Your task to perform on an android device: What's the weather? Image 0: 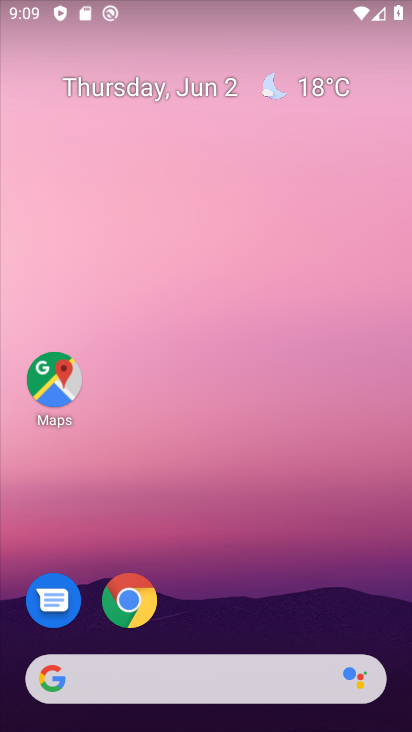
Step 0: drag from (220, 594) to (256, 101)
Your task to perform on an android device: What's the weather? Image 1: 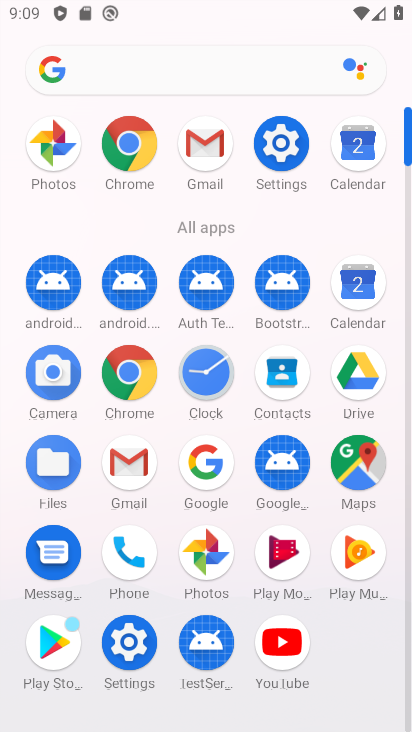
Step 1: click (203, 469)
Your task to perform on an android device: What's the weather? Image 2: 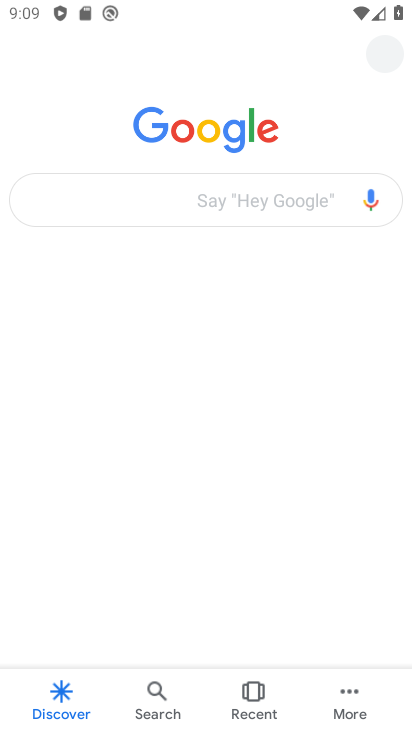
Step 2: click (148, 217)
Your task to perform on an android device: What's the weather? Image 3: 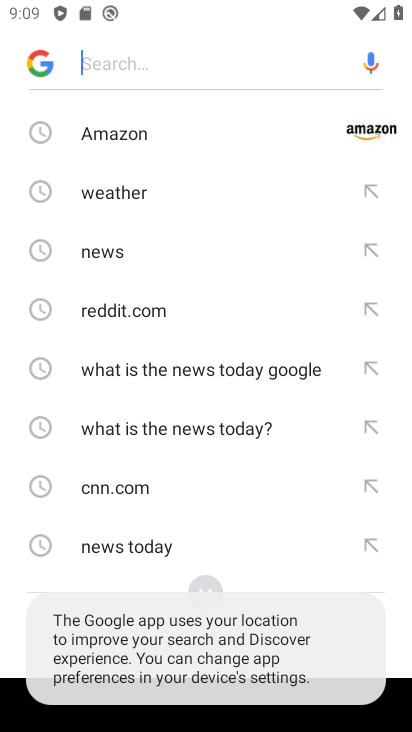
Step 3: click (127, 196)
Your task to perform on an android device: What's the weather? Image 4: 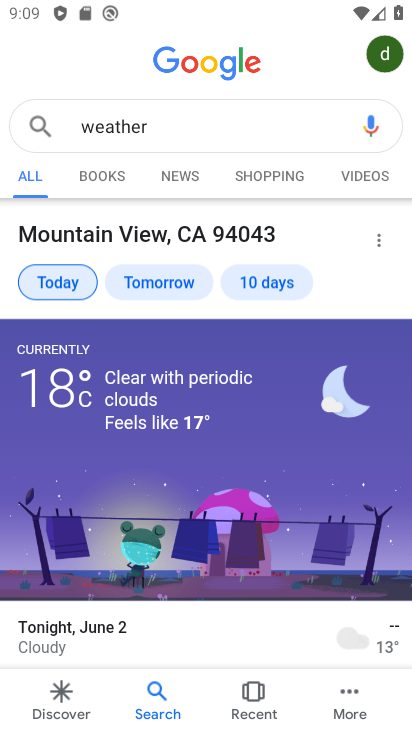
Step 4: task complete